Your task to perform on an android device: toggle notification dots Image 0: 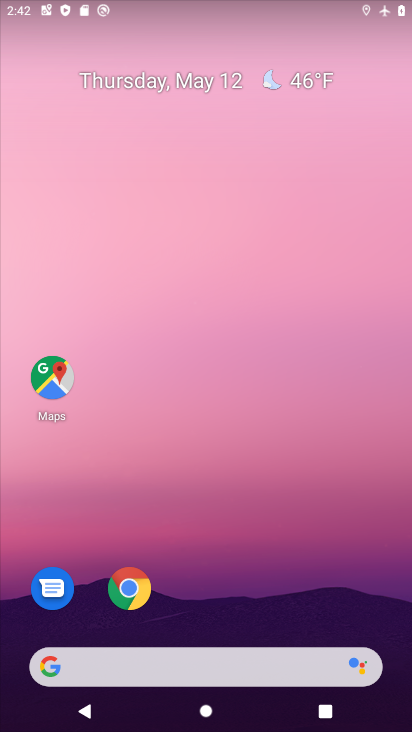
Step 0: drag from (388, 633) to (291, 0)
Your task to perform on an android device: toggle notification dots Image 1: 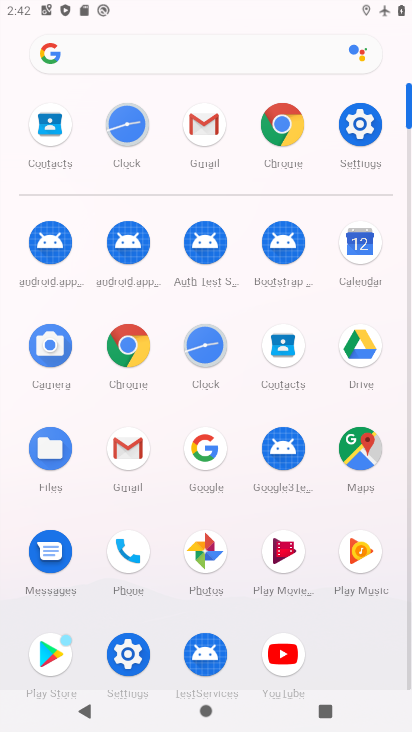
Step 1: click (379, 121)
Your task to perform on an android device: toggle notification dots Image 2: 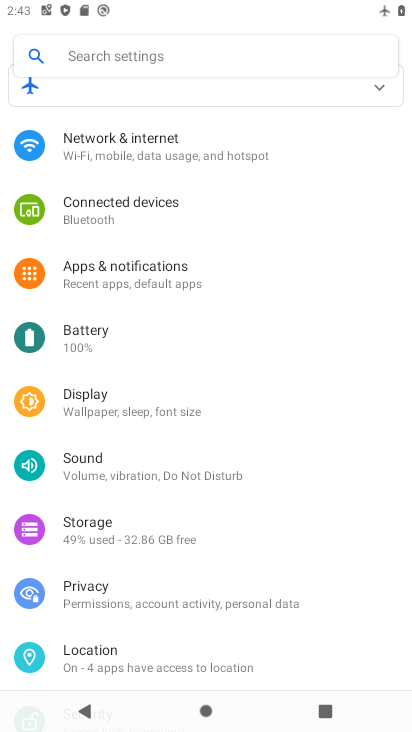
Step 2: click (143, 287)
Your task to perform on an android device: toggle notification dots Image 3: 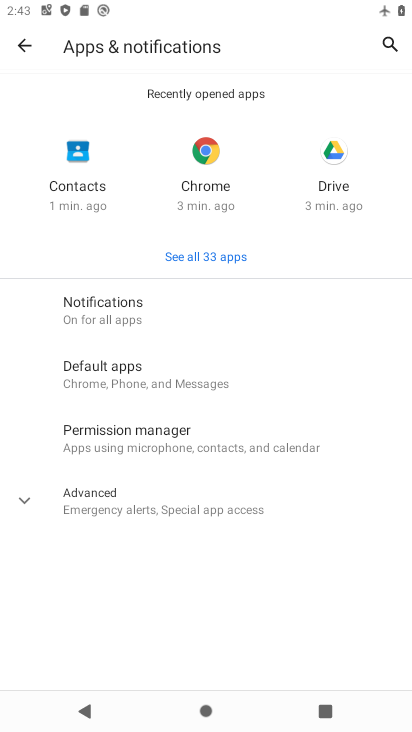
Step 3: click (146, 325)
Your task to perform on an android device: toggle notification dots Image 4: 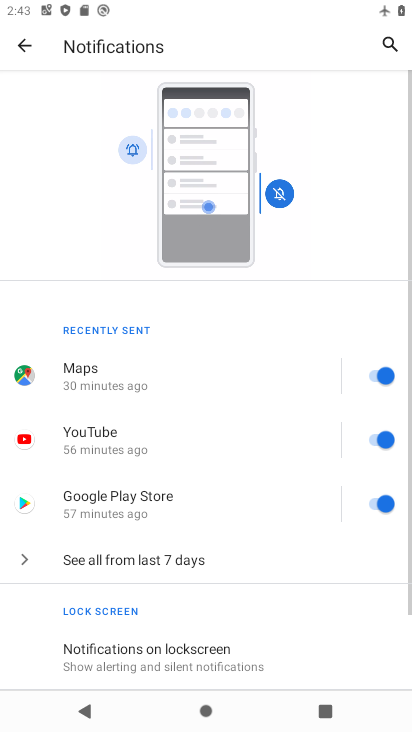
Step 4: drag from (198, 637) to (120, 230)
Your task to perform on an android device: toggle notification dots Image 5: 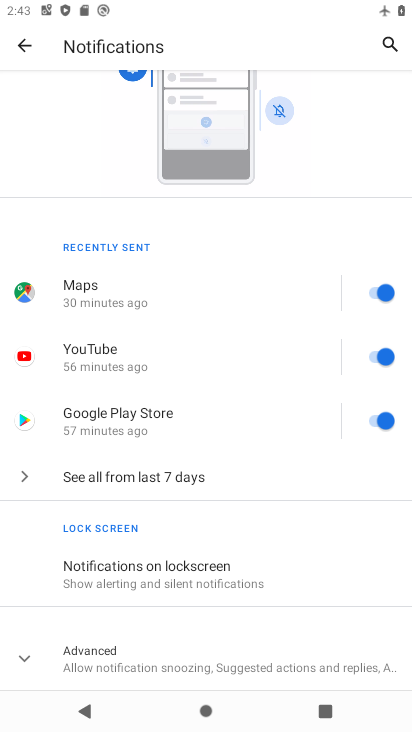
Step 5: click (30, 673)
Your task to perform on an android device: toggle notification dots Image 6: 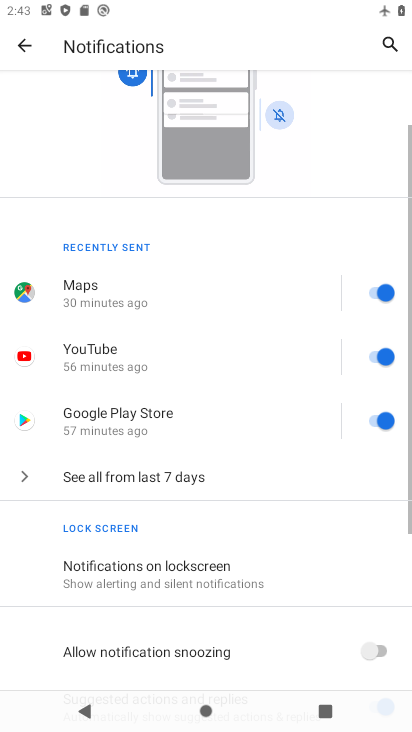
Step 6: drag from (120, 679) to (173, 283)
Your task to perform on an android device: toggle notification dots Image 7: 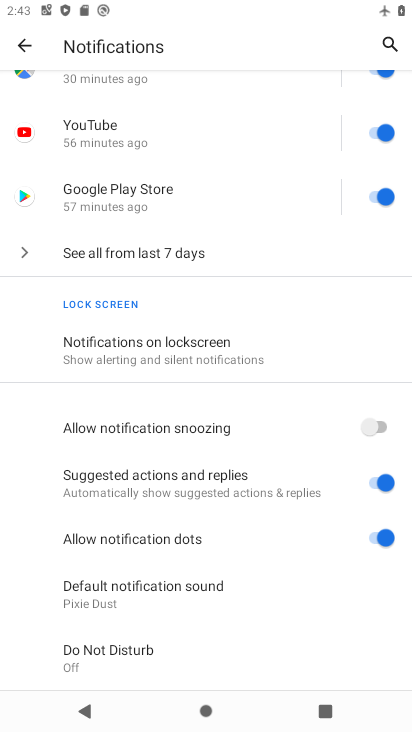
Step 7: click (260, 541)
Your task to perform on an android device: toggle notification dots Image 8: 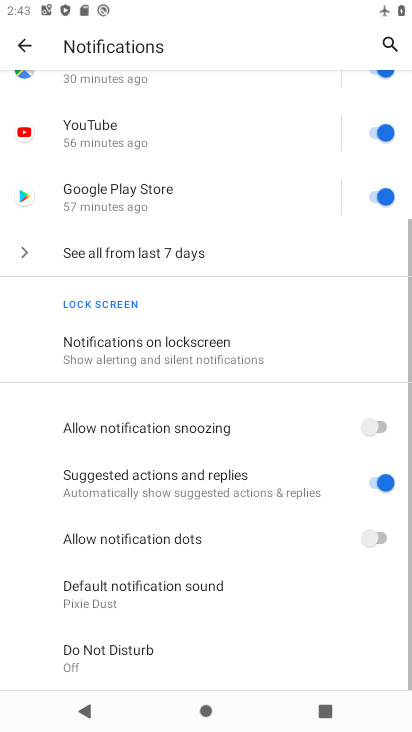
Step 8: click (260, 541)
Your task to perform on an android device: toggle notification dots Image 9: 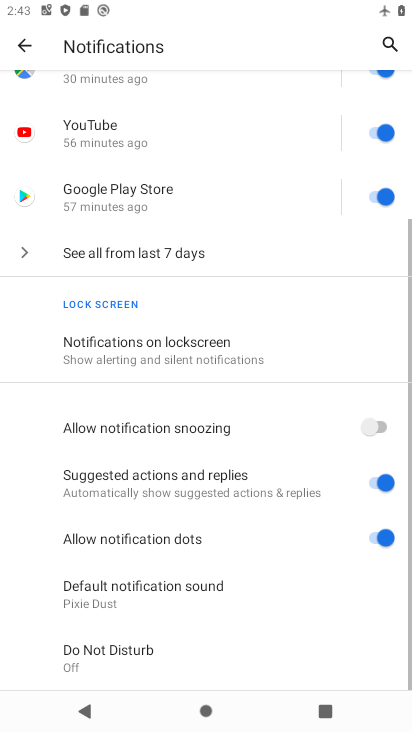
Step 9: click (260, 541)
Your task to perform on an android device: toggle notification dots Image 10: 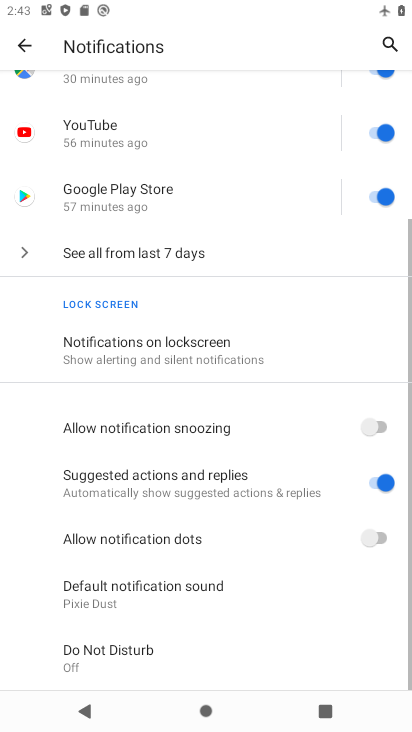
Step 10: task complete